Your task to perform on an android device: Turn on the flashlight Image 0: 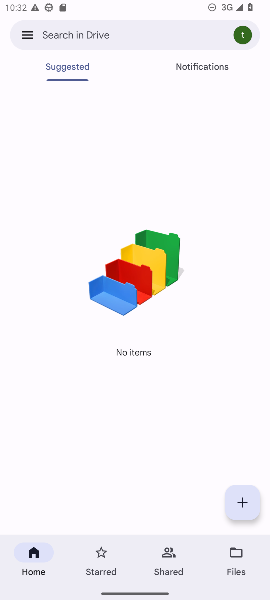
Step 0: press home button
Your task to perform on an android device: Turn on the flashlight Image 1: 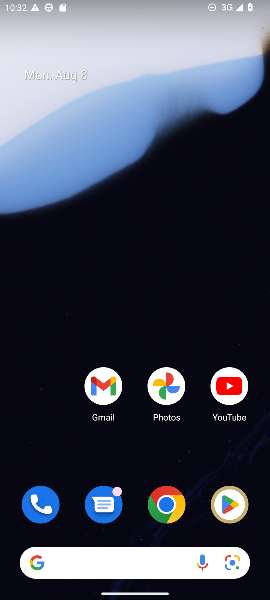
Step 1: drag from (126, 502) to (107, 9)
Your task to perform on an android device: Turn on the flashlight Image 2: 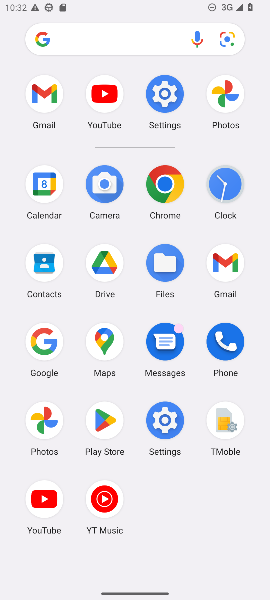
Step 2: click (168, 103)
Your task to perform on an android device: Turn on the flashlight Image 3: 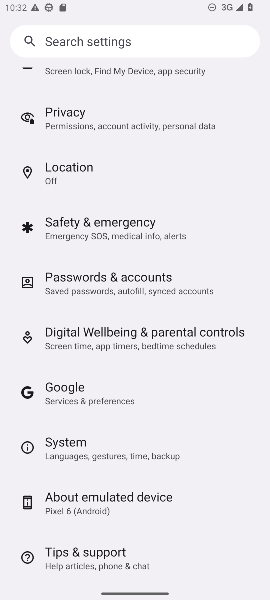
Step 3: click (127, 41)
Your task to perform on an android device: Turn on the flashlight Image 4: 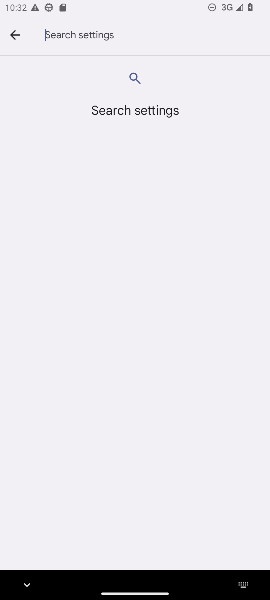
Step 4: type "flashlight"
Your task to perform on an android device: Turn on the flashlight Image 5: 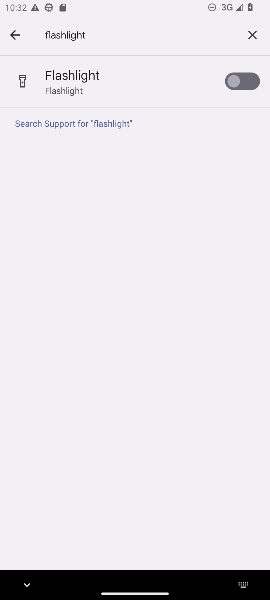
Step 5: click (255, 72)
Your task to perform on an android device: Turn on the flashlight Image 6: 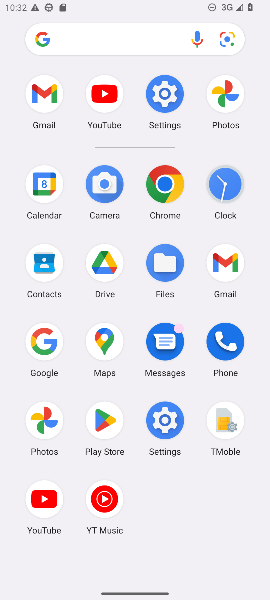
Step 6: click (174, 102)
Your task to perform on an android device: Turn on the flashlight Image 7: 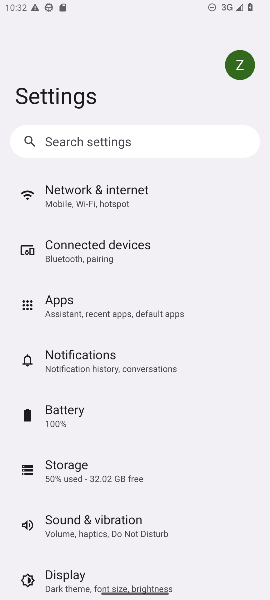
Step 7: click (158, 144)
Your task to perform on an android device: Turn on the flashlight Image 8: 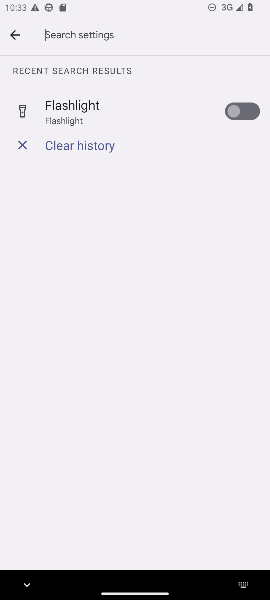
Step 8: click (246, 110)
Your task to perform on an android device: Turn on the flashlight Image 9: 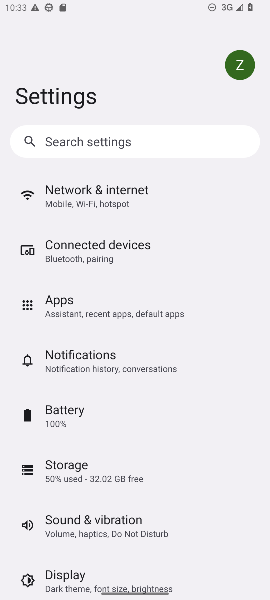
Step 9: task complete